Your task to perform on an android device: turn on javascript in the chrome app Image 0: 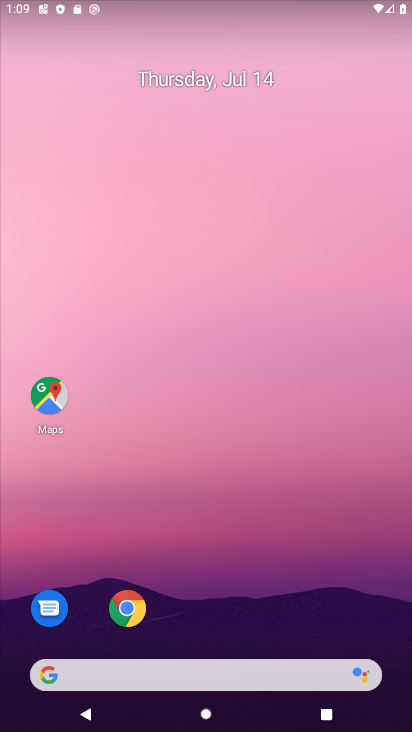
Step 0: click (129, 609)
Your task to perform on an android device: turn on javascript in the chrome app Image 1: 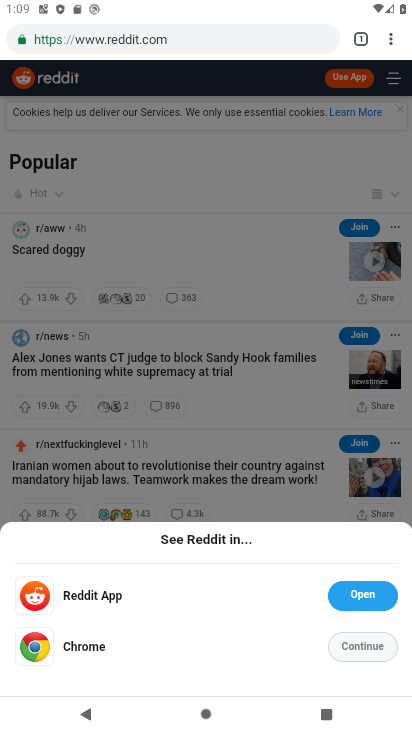
Step 1: click (391, 44)
Your task to perform on an android device: turn on javascript in the chrome app Image 2: 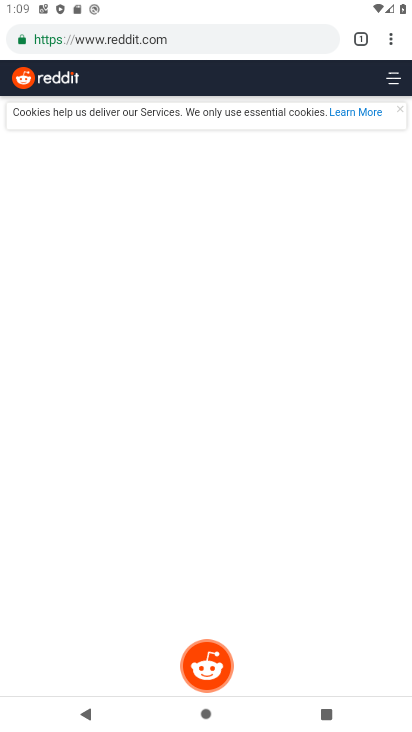
Step 2: click (388, 44)
Your task to perform on an android device: turn on javascript in the chrome app Image 3: 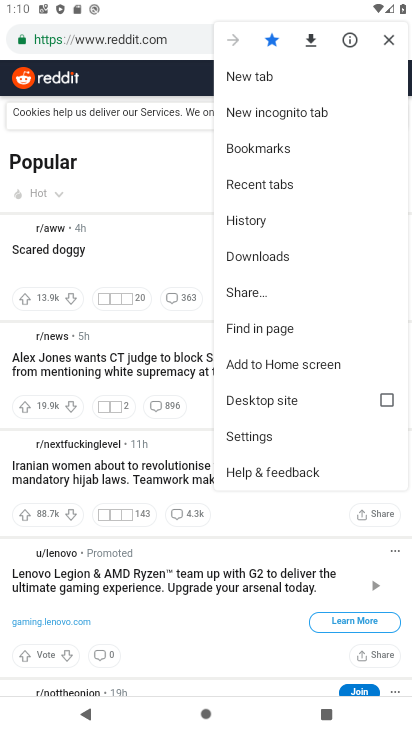
Step 3: click (252, 443)
Your task to perform on an android device: turn on javascript in the chrome app Image 4: 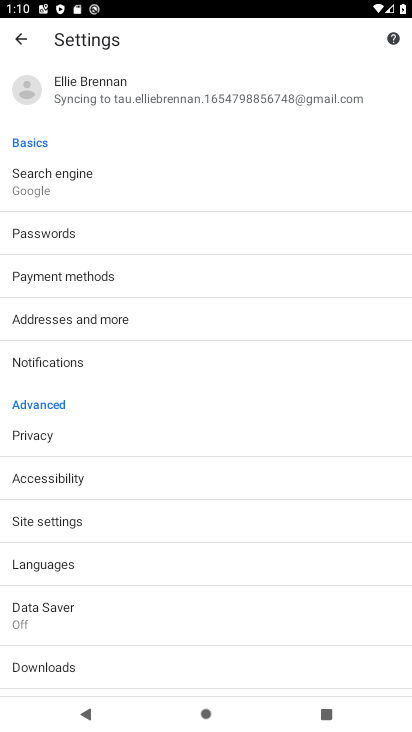
Step 4: drag from (205, 607) to (206, 338)
Your task to perform on an android device: turn on javascript in the chrome app Image 5: 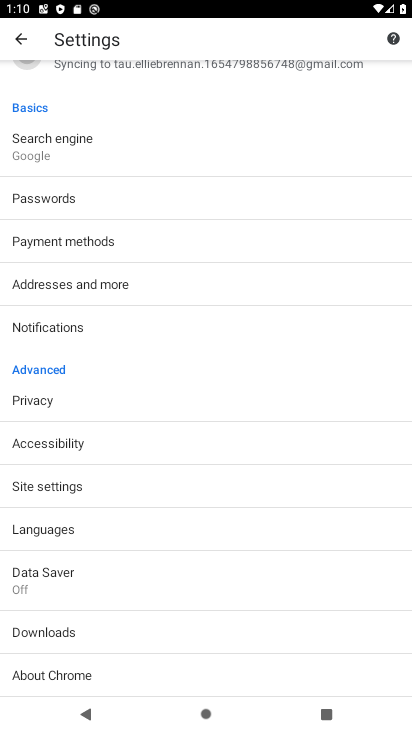
Step 5: click (49, 486)
Your task to perform on an android device: turn on javascript in the chrome app Image 6: 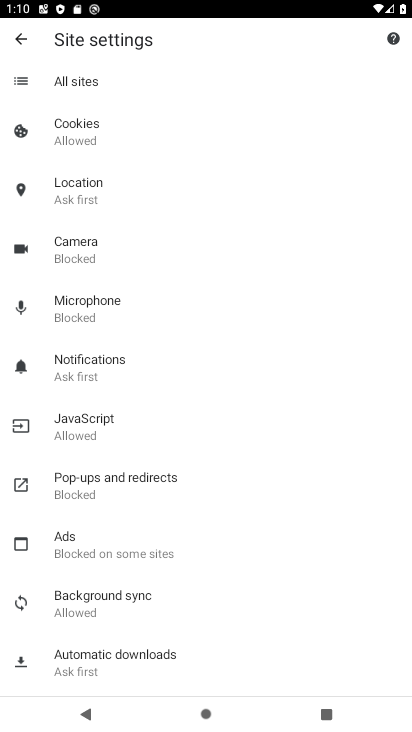
Step 6: click (74, 421)
Your task to perform on an android device: turn on javascript in the chrome app Image 7: 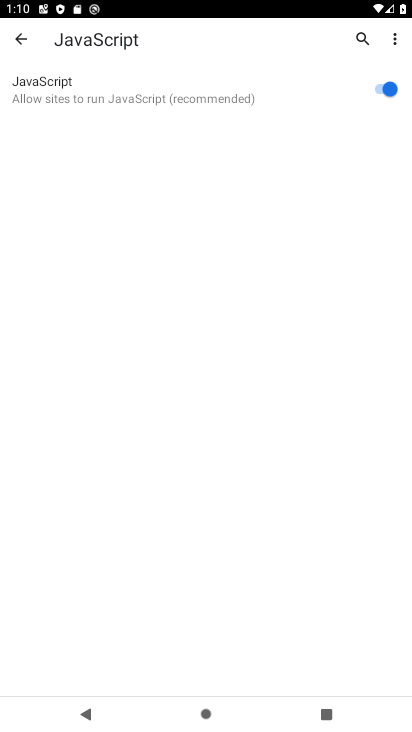
Step 7: task complete